Your task to perform on an android device: open app "Spotify" Image 0: 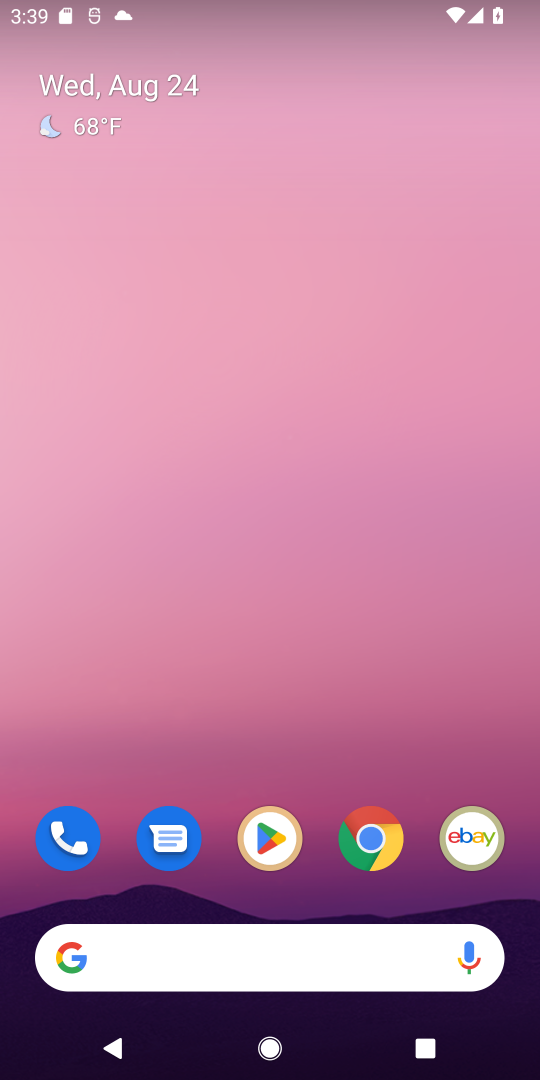
Step 0: click (281, 841)
Your task to perform on an android device: open app "Spotify" Image 1: 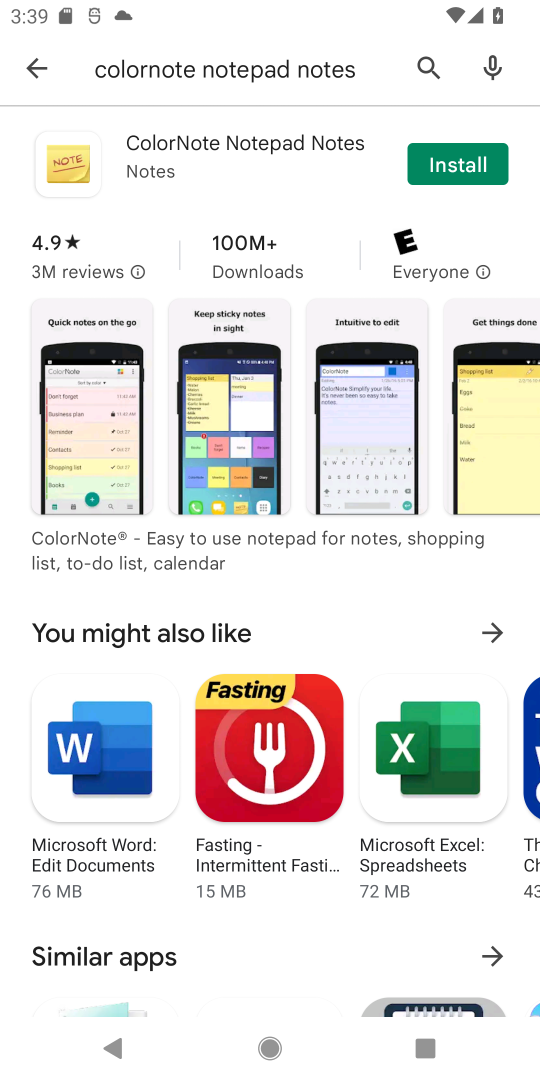
Step 1: click (417, 59)
Your task to perform on an android device: open app "Spotify" Image 2: 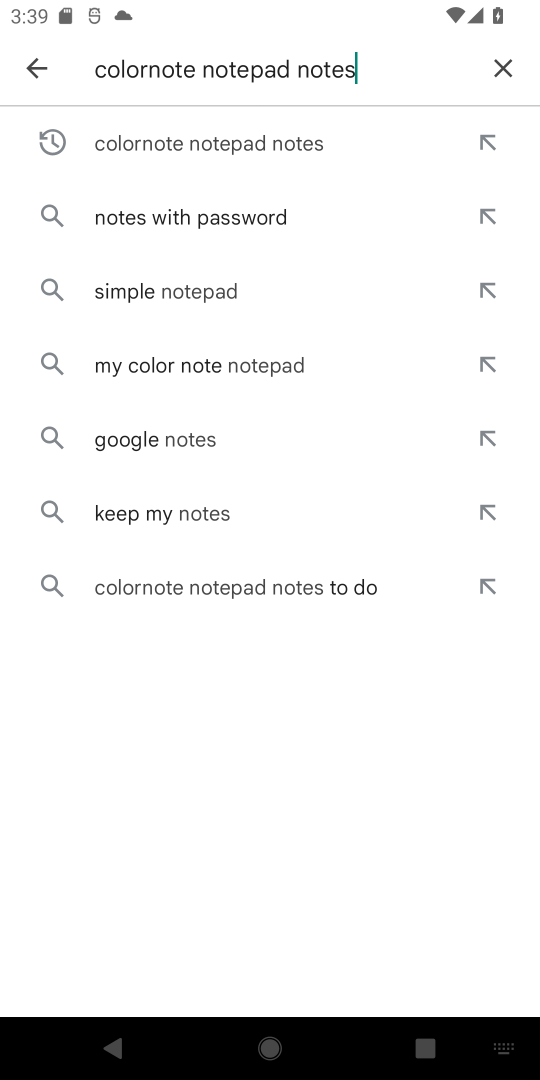
Step 2: click (503, 64)
Your task to perform on an android device: open app "Spotify" Image 3: 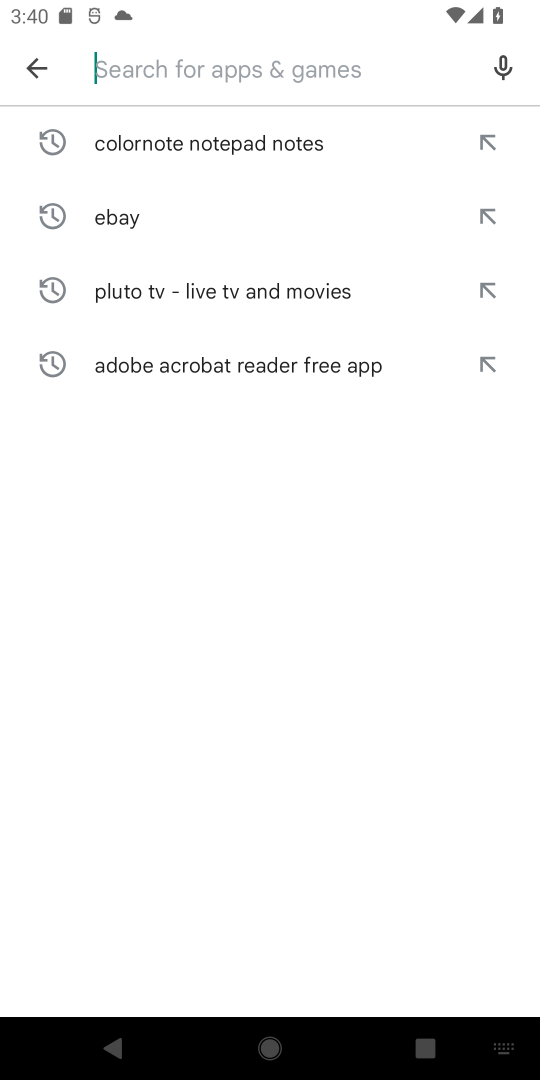
Step 3: type "Spotify"
Your task to perform on an android device: open app "Spotify" Image 4: 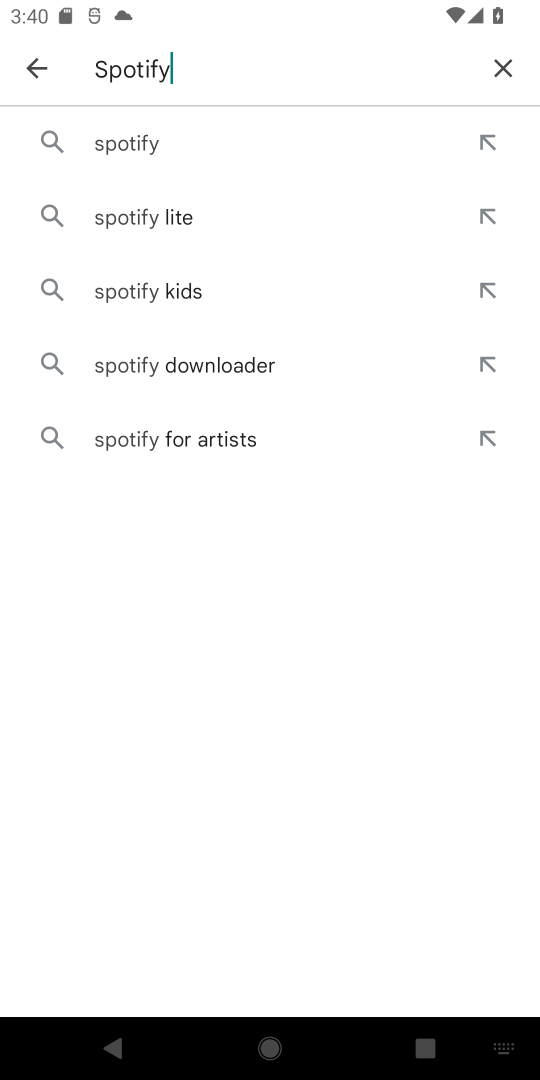
Step 4: click (127, 131)
Your task to perform on an android device: open app "Spotify" Image 5: 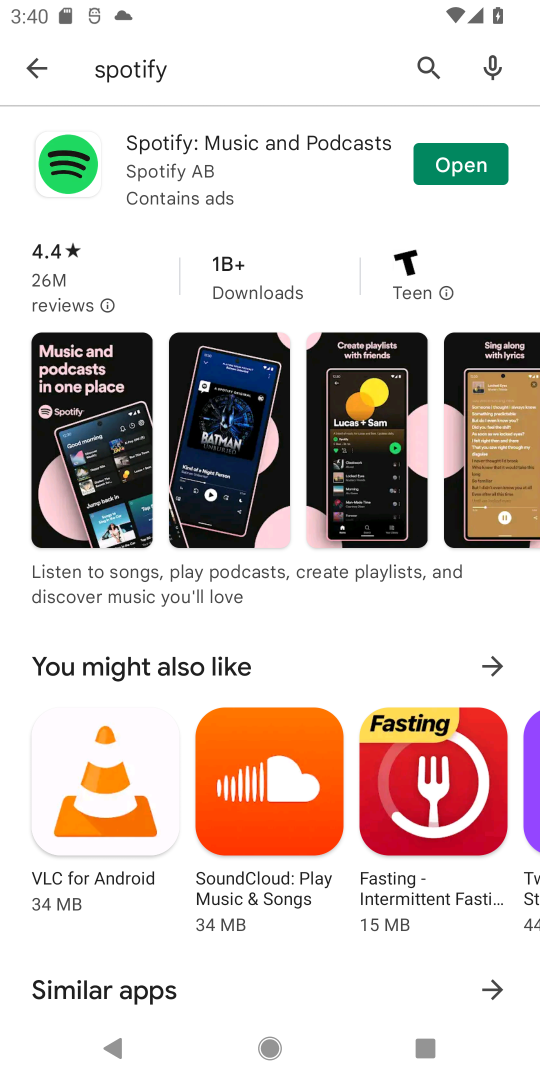
Step 5: click (476, 155)
Your task to perform on an android device: open app "Spotify" Image 6: 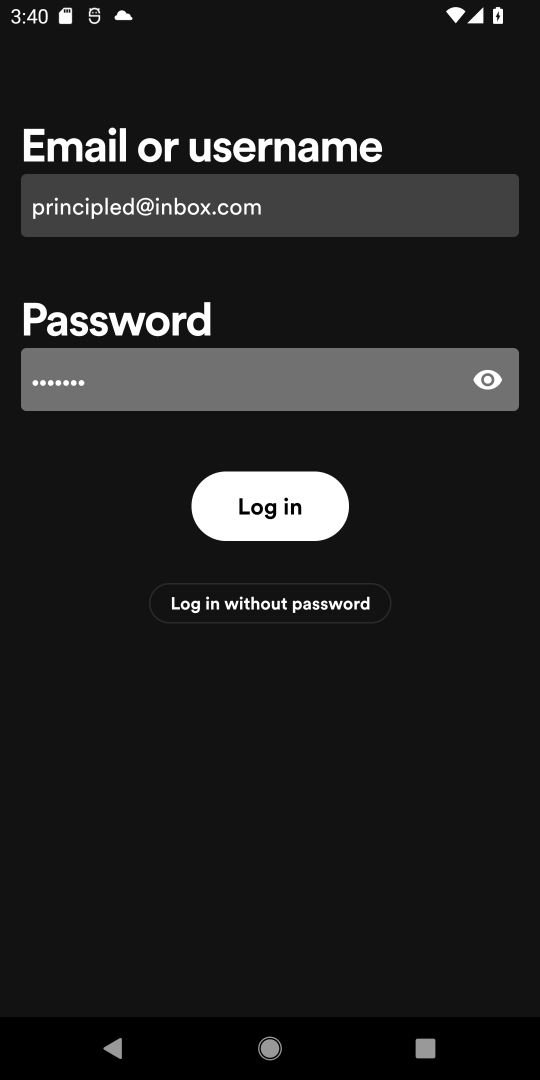
Step 6: task complete